Your task to perform on an android device: Search for vegetarian restaurants on Maps Image 0: 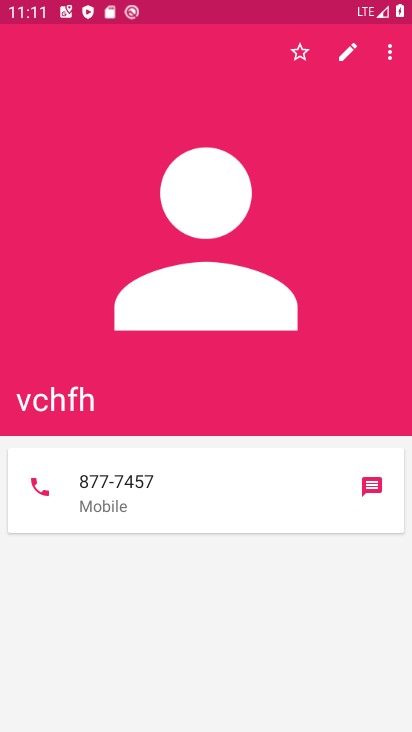
Step 0: drag from (227, 621) to (221, 553)
Your task to perform on an android device: Search for vegetarian restaurants on Maps Image 1: 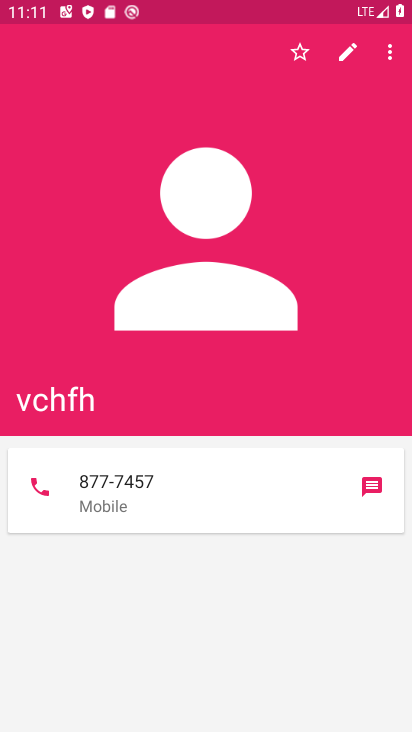
Step 1: press home button
Your task to perform on an android device: Search for vegetarian restaurants on Maps Image 2: 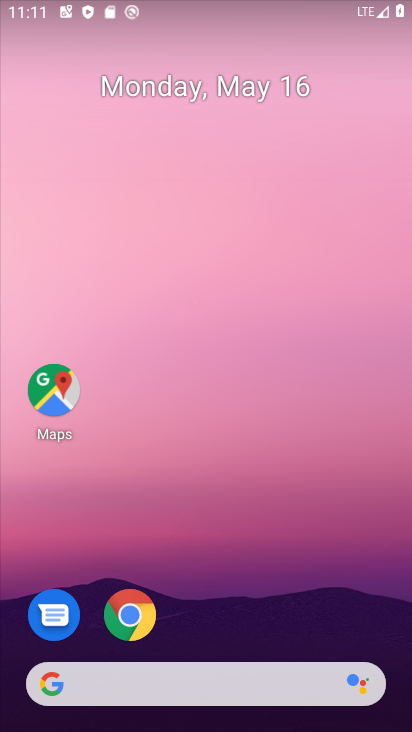
Step 2: drag from (251, 598) to (223, 146)
Your task to perform on an android device: Search for vegetarian restaurants on Maps Image 3: 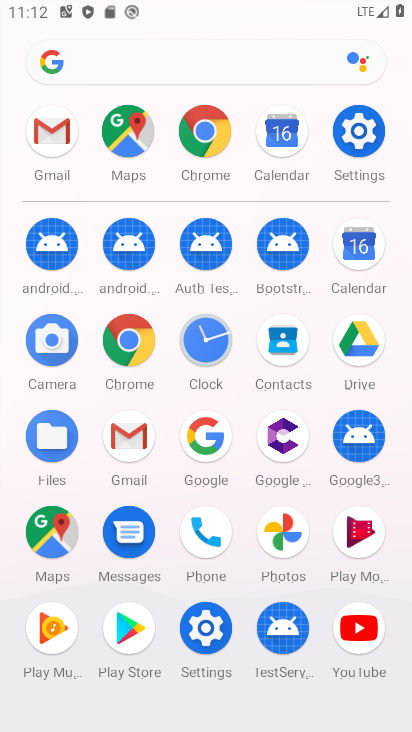
Step 3: click (48, 524)
Your task to perform on an android device: Search for vegetarian restaurants on Maps Image 4: 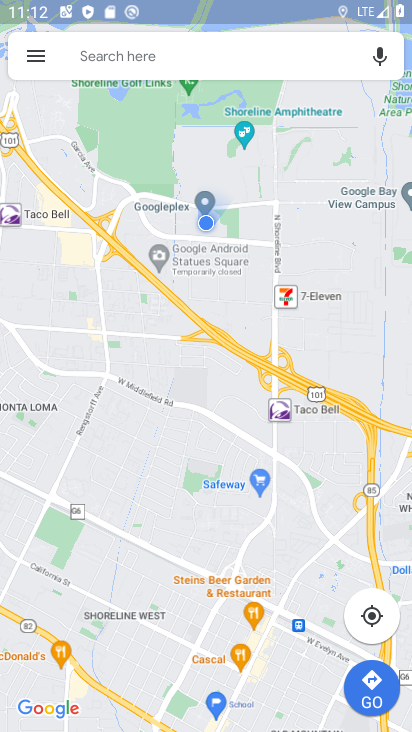
Step 4: click (175, 34)
Your task to perform on an android device: Search for vegetarian restaurants on Maps Image 5: 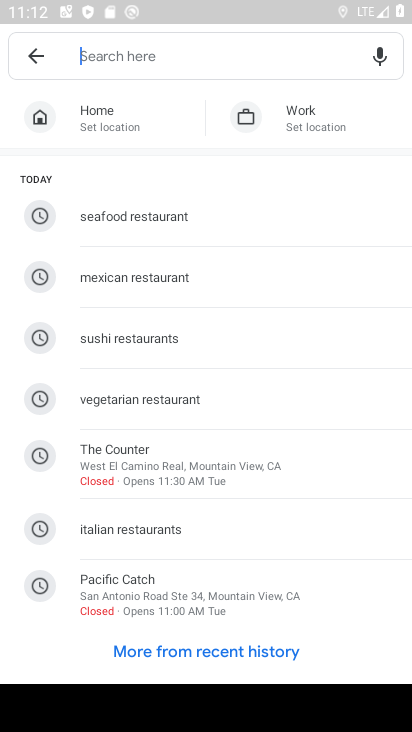
Step 5: click (162, 400)
Your task to perform on an android device: Search for vegetarian restaurants on Maps Image 6: 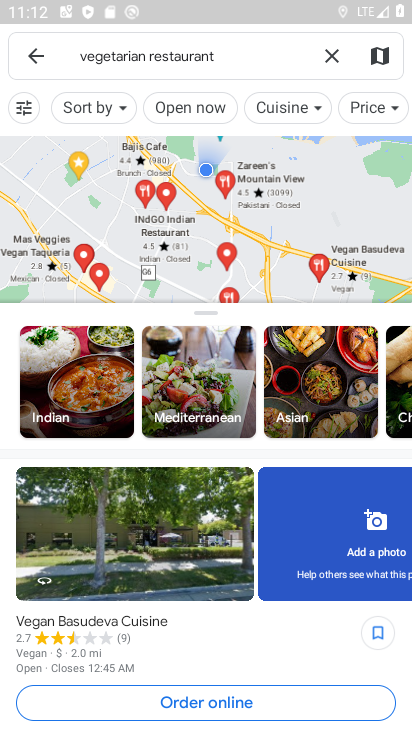
Step 6: task complete